Your task to perform on an android device: Go to display settings Image 0: 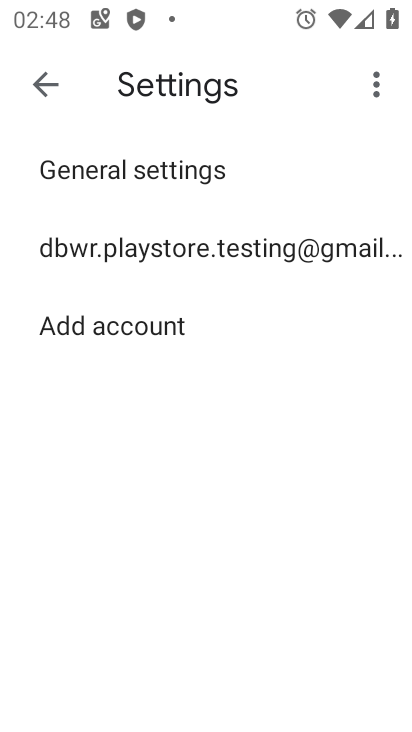
Step 0: press home button
Your task to perform on an android device: Go to display settings Image 1: 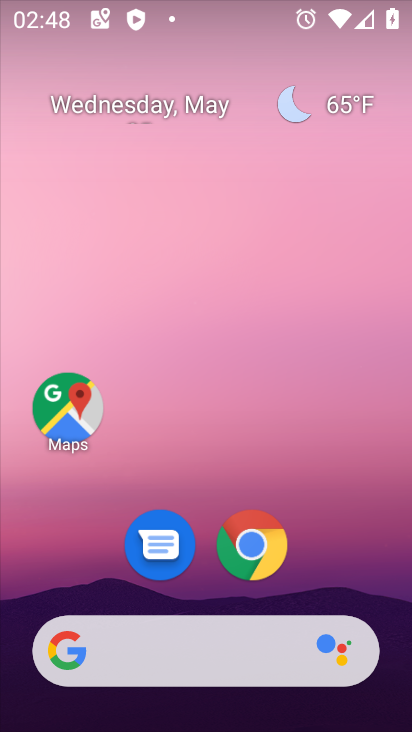
Step 1: drag from (335, 367) to (220, 31)
Your task to perform on an android device: Go to display settings Image 2: 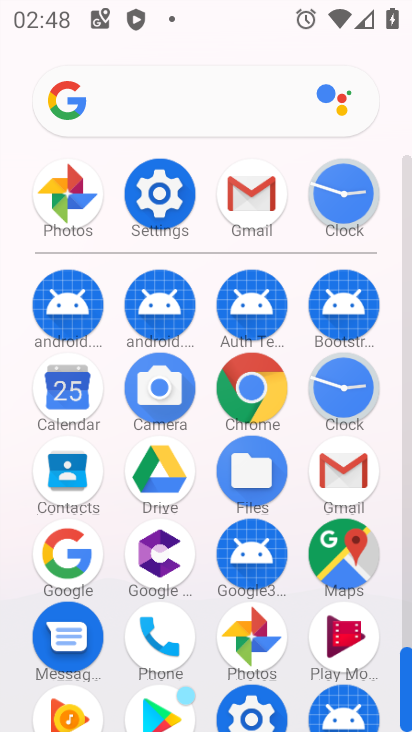
Step 2: click (172, 194)
Your task to perform on an android device: Go to display settings Image 3: 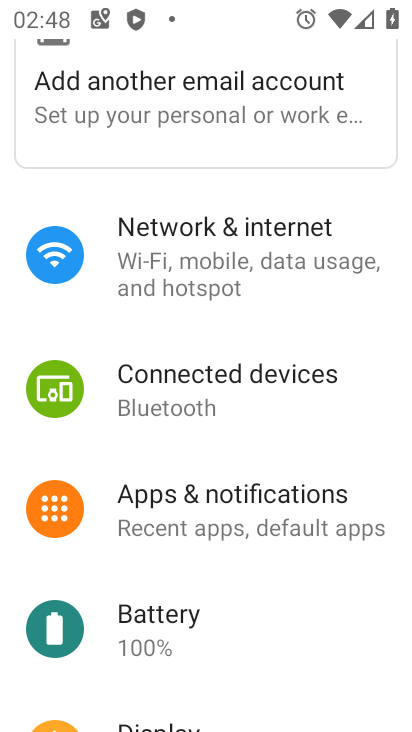
Step 3: drag from (244, 712) to (226, 335)
Your task to perform on an android device: Go to display settings Image 4: 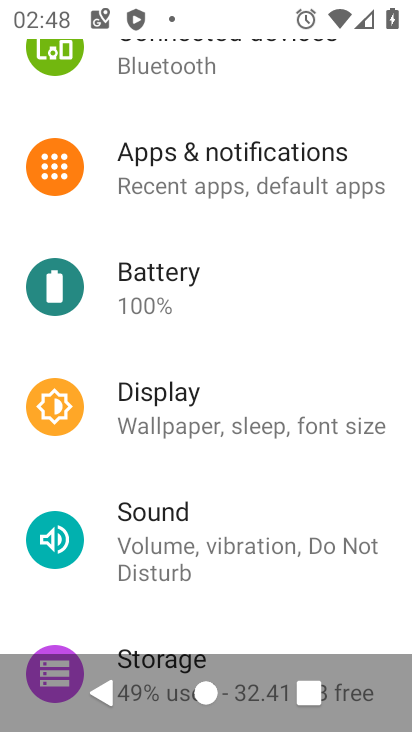
Step 4: click (234, 402)
Your task to perform on an android device: Go to display settings Image 5: 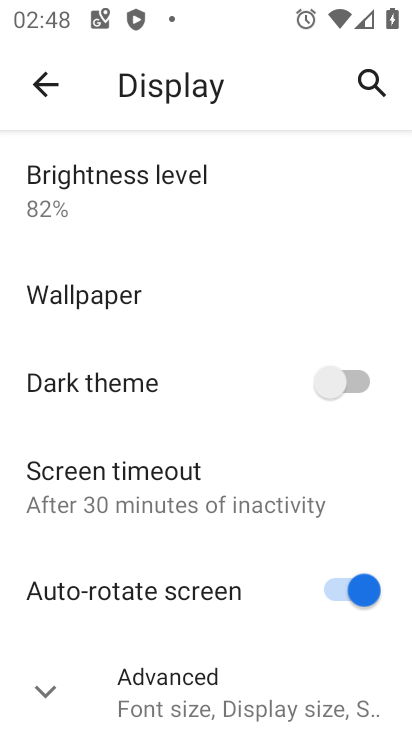
Step 5: task complete